Your task to perform on an android device: empty trash in google photos Image 0: 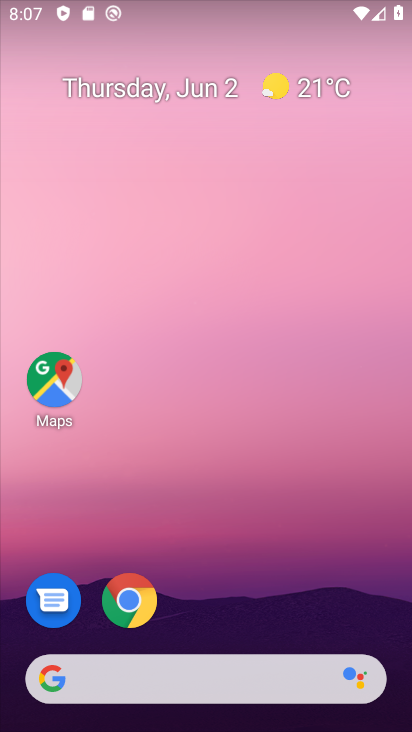
Step 0: drag from (229, 621) to (262, 183)
Your task to perform on an android device: empty trash in google photos Image 1: 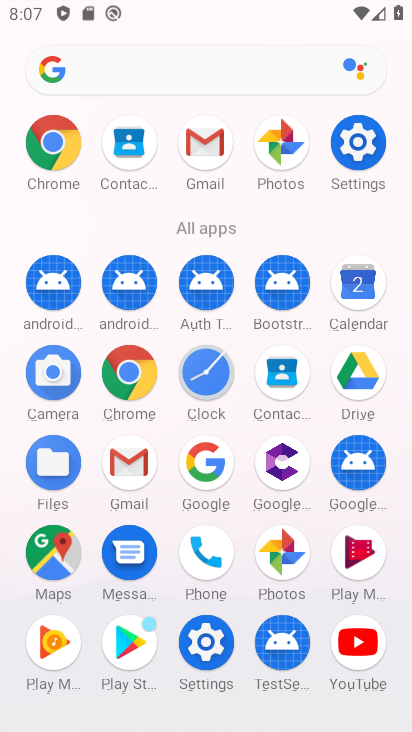
Step 1: click (276, 150)
Your task to perform on an android device: empty trash in google photos Image 2: 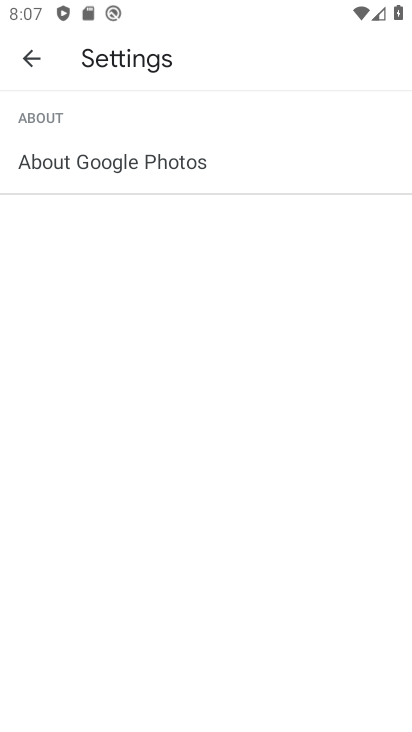
Step 2: click (17, 61)
Your task to perform on an android device: empty trash in google photos Image 3: 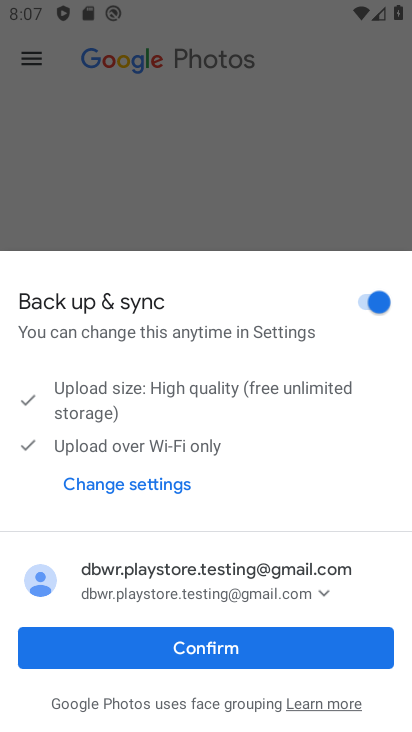
Step 3: click (214, 659)
Your task to perform on an android device: empty trash in google photos Image 4: 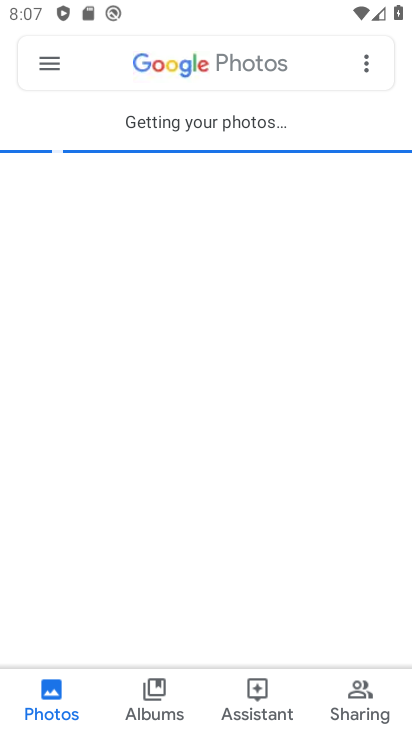
Step 4: click (41, 60)
Your task to perform on an android device: empty trash in google photos Image 5: 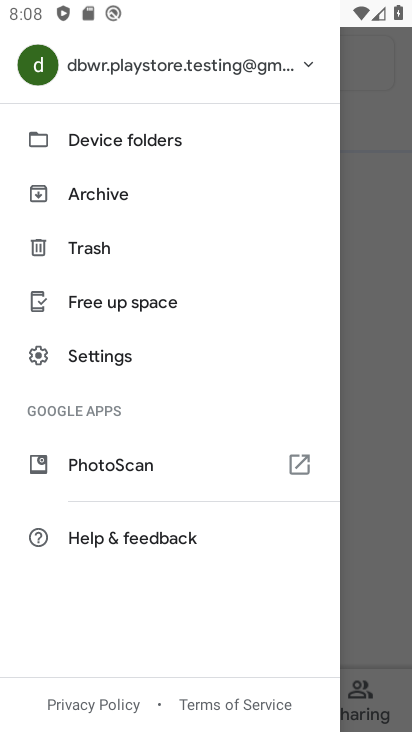
Step 5: click (102, 252)
Your task to perform on an android device: empty trash in google photos Image 6: 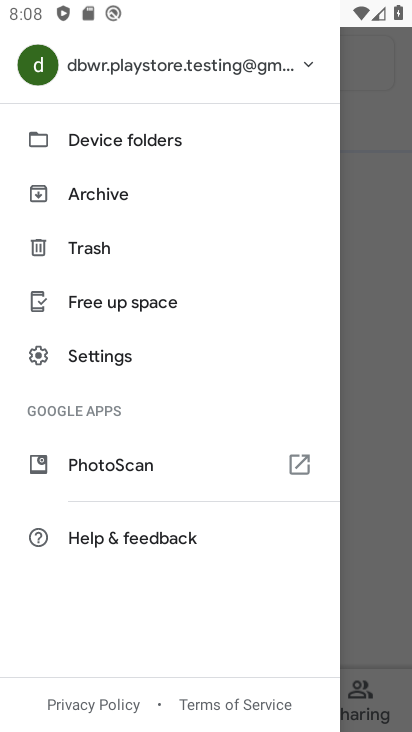
Step 6: click (92, 244)
Your task to perform on an android device: empty trash in google photos Image 7: 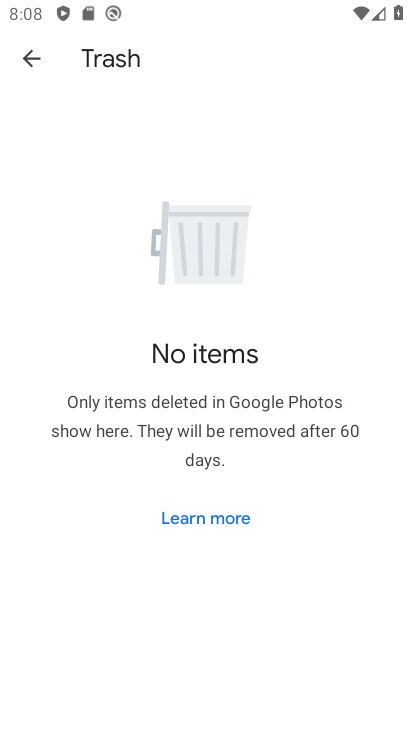
Step 7: task complete